Your task to perform on an android device: Show me the alarms in the clock app Image 0: 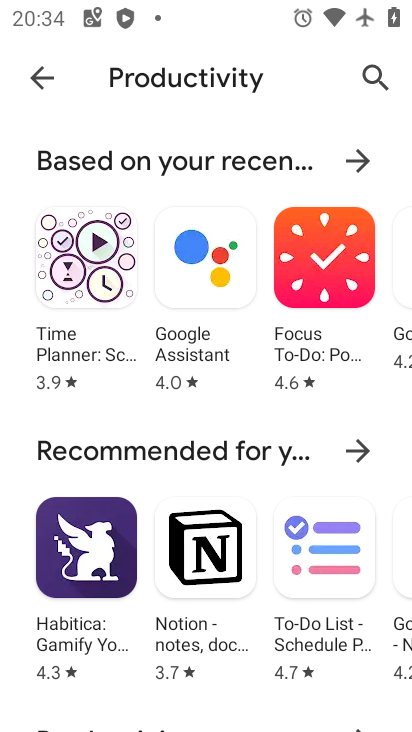
Step 0: press home button
Your task to perform on an android device: Show me the alarms in the clock app Image 1: 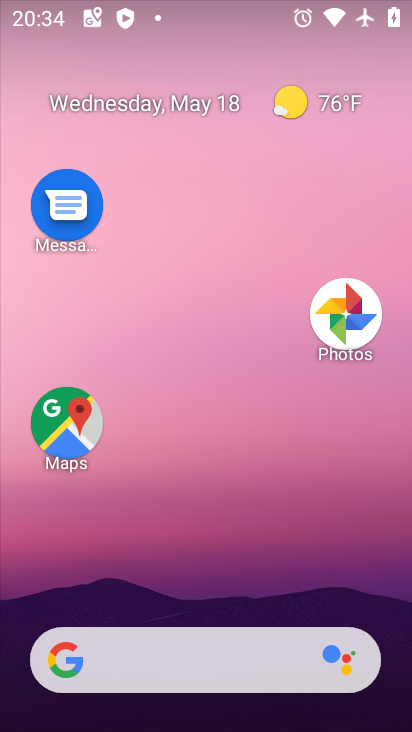
Step 1: drag from (184, 641) to (111, 46)
Your task to perform on an android device: Show me the alarms in the clock app Image 2: 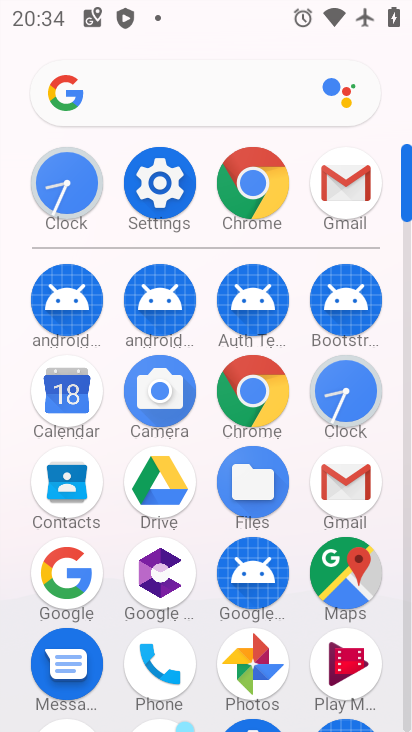
Step 2: click (346, 399)
Your task to perform on an android device: Show me the alarms in the clock app Image 3: 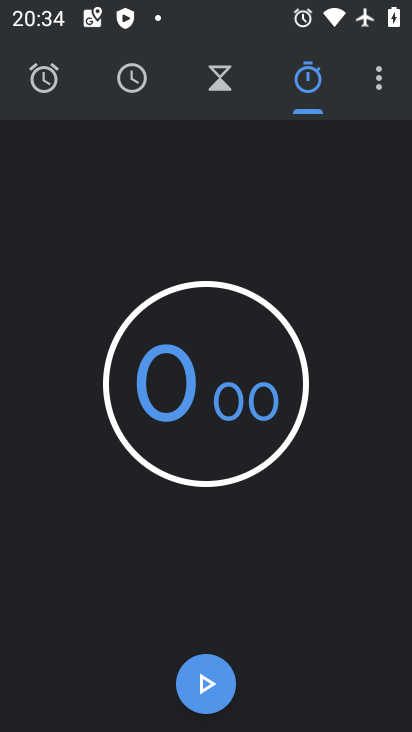
Step 3: click (36, 93)
Your task to perform on an android device: Show me the alarms in the clock app Image 4: 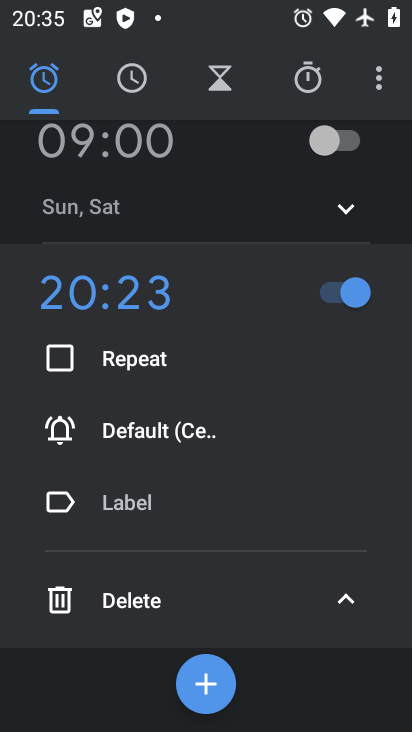
Step 4: task complete